Your task to perform on an android device: see creations saved in the google photos Image 0: 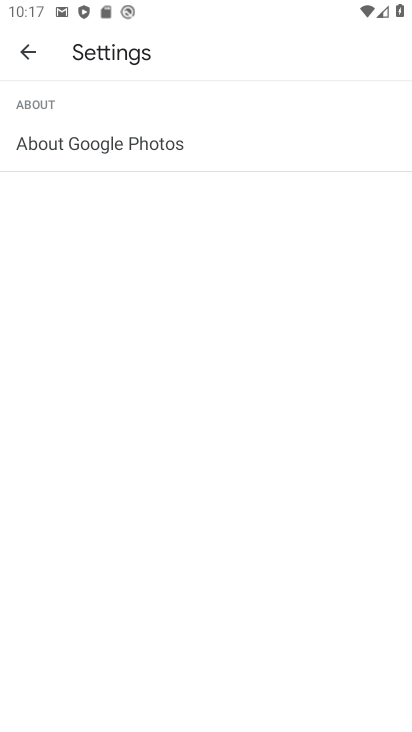
Step 0: press home button
Your task to perform on an android device: see creations saved in the google photos Image 1: 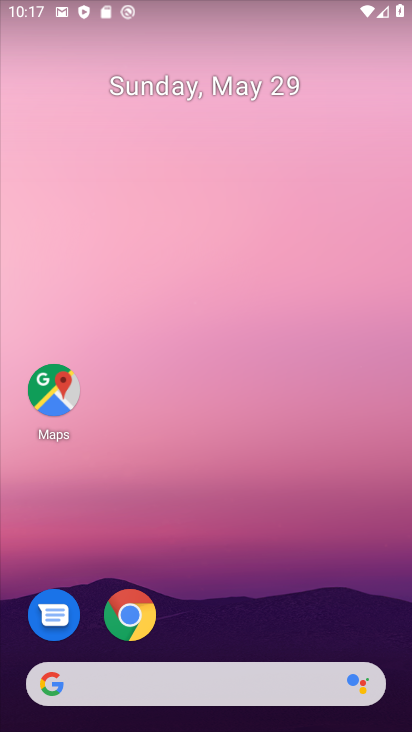
Step 1: drag from (340, 616) to (375, 203)
Your task to perform on an android device: see creations saved in the google photos Image 2: 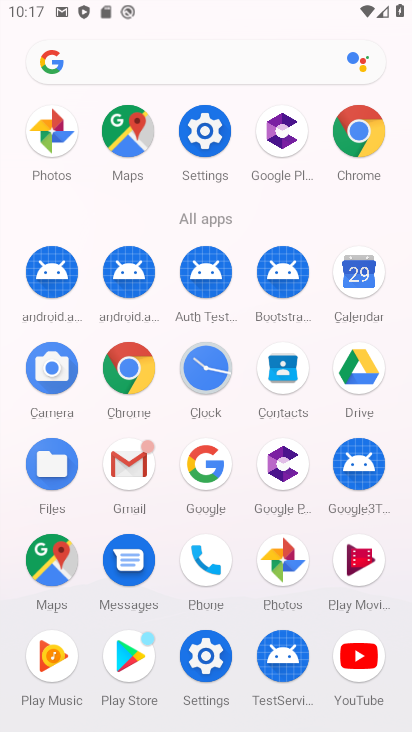
Step 2: click (288, 573)
Your task to perform on an android device: see creations saved in the google photos Image 3: 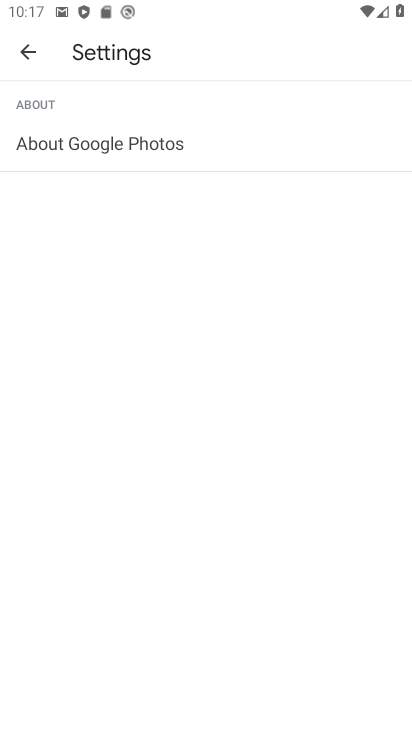
Step 3: click (29, 54)
Your task to perform on an android device: see creations saved in the google photos Image 4: 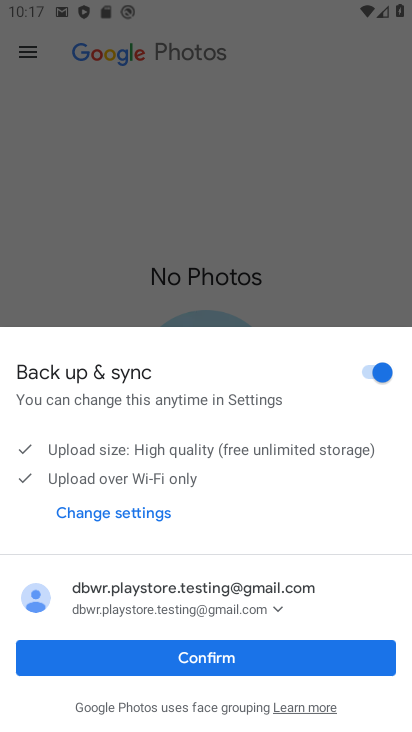
Step 4: click (366, 668)
Your task to perform on an android device: see creations saved in the google photos Image 5: 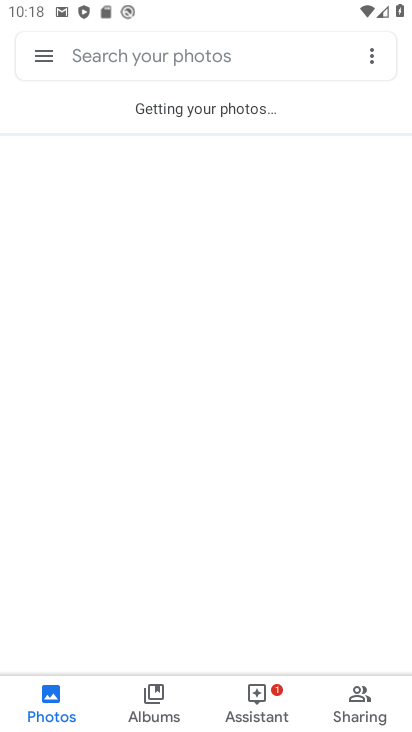
Step 5: click (194, 68)
Your task to perform on an android device: see creations saved in the google photos Image 6: 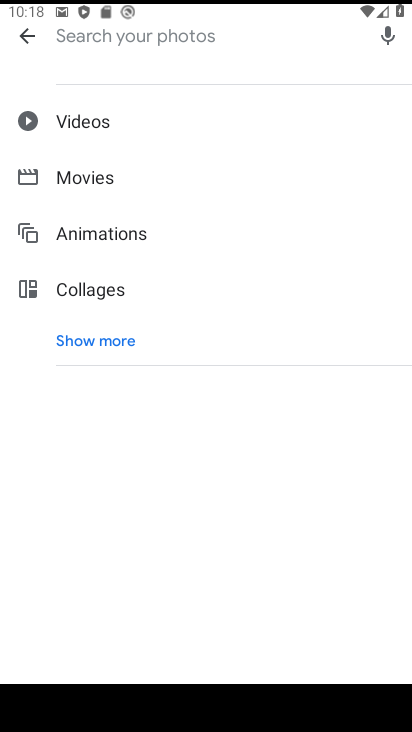
Step 6: click (171, 340)
Your task to perform on an android device: see creations saved in the google photos Image 7: 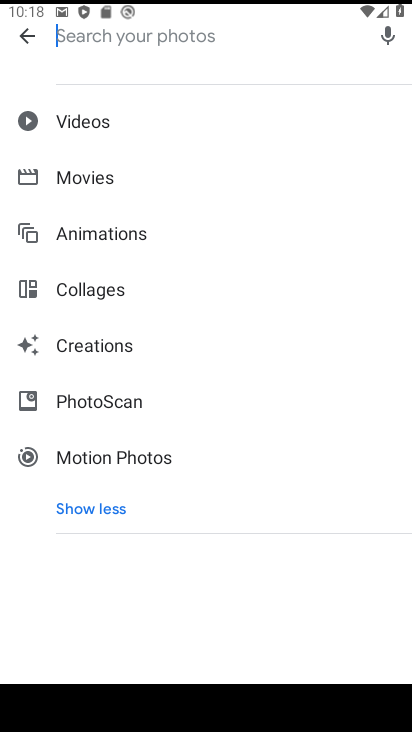
Step 7: click (108, 356)
Your task to perform on an android device: see creations saved in the google photos Image 8: 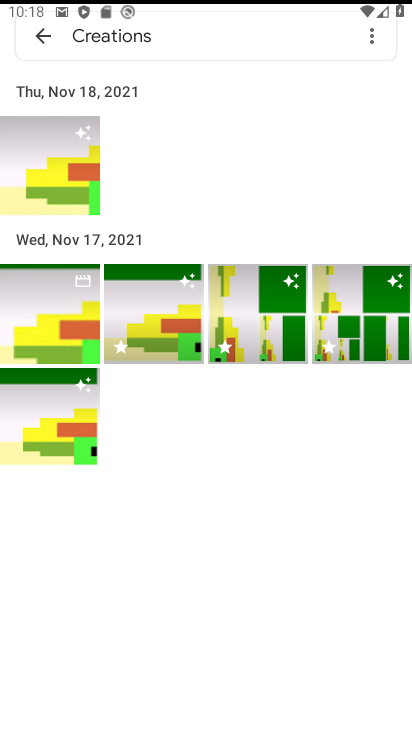
Step 8: task complete